Your task to perform on an android device: manage bookmarks in the chrome app Image 0: 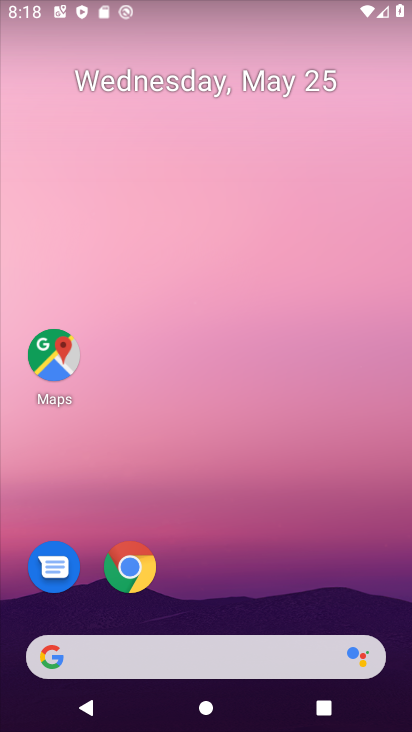
Step 0: click (113, 561)
Your task to perform on an android device: manage bookmarks in the chrome app Image 1: 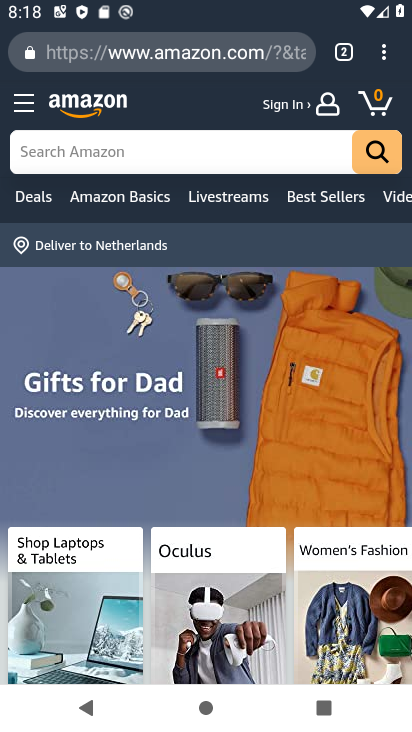
Step 1: click (239, 47)
Your task to perform on an android device: manage bookmarks in the chrome app Image 2: 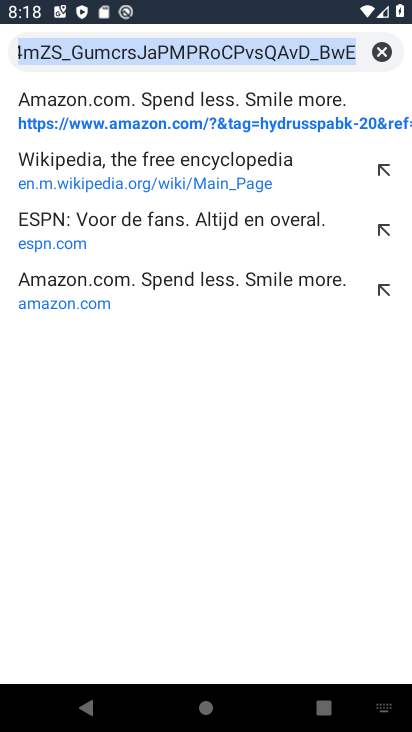
Step 2: click (392, 40)
Your task to perform on an android device: manage bookmarks in the chrome app Image 3: 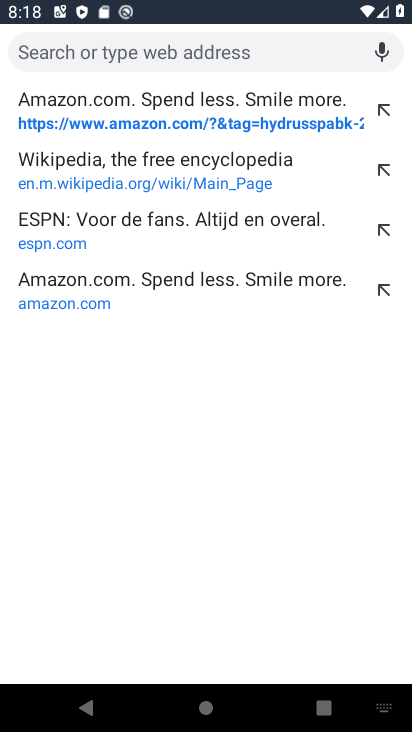
Step 3: click (91, 715)
Your task to perform on an android device: manage bookmarks in the chrome app Image 4: 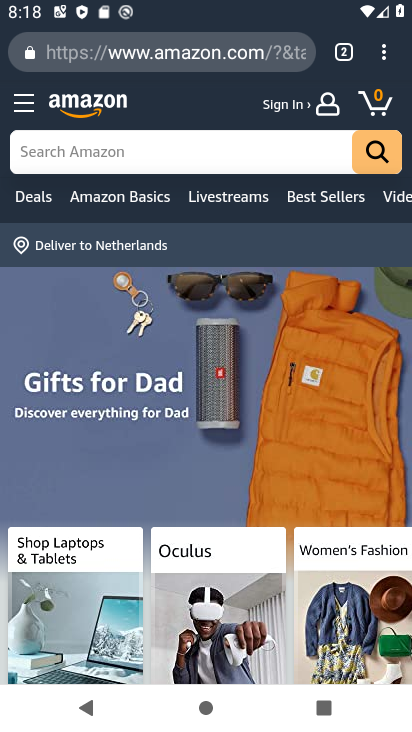
Step 4: click (382, 48)
Your task to perform on an android device: manage bookmarks in the chrome app Image 5: 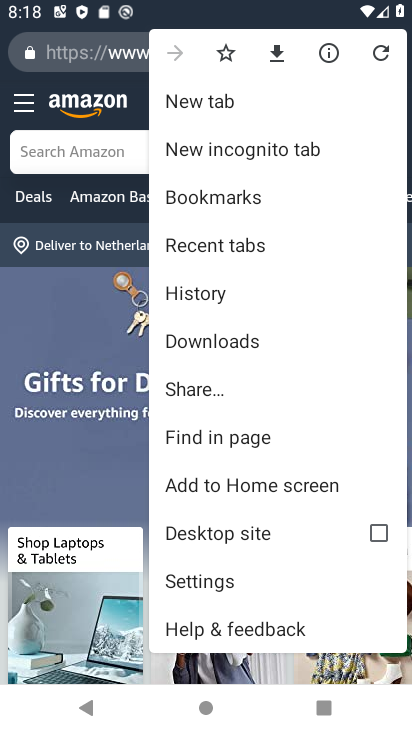
Step 5: click (249, 209)
Your task to perform on an android device: manage bookmarks in the chrome app Image 6: 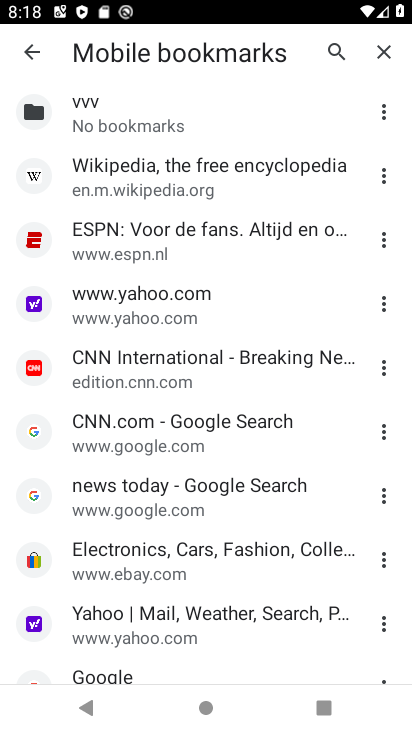
Step 6: click (205, 199)
Your task to perform on an android device: manage bookmarks in the chrome app Image 7: 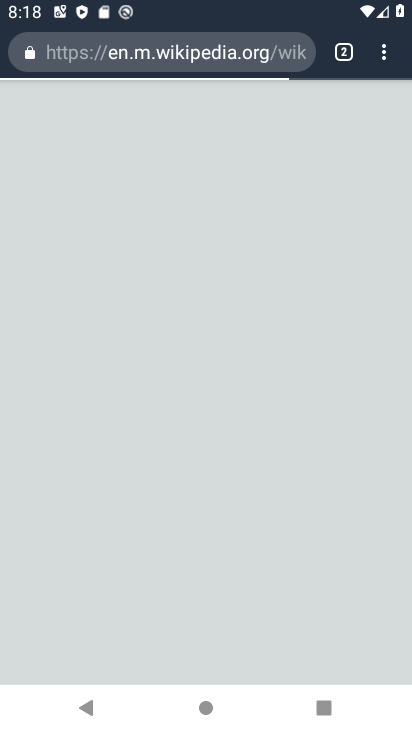
Step 7: task complete